Your task to perform on an android device: find which apps use the phone's location Image 0: 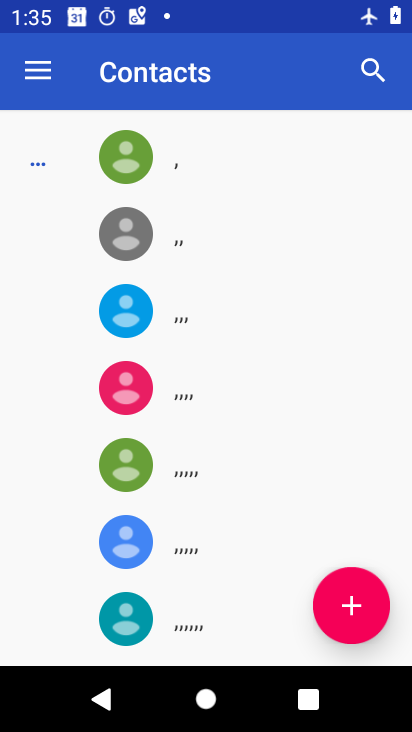
Step 0: press home button
Your task to perform on an android device: find which apps use the phone's location Image 1: 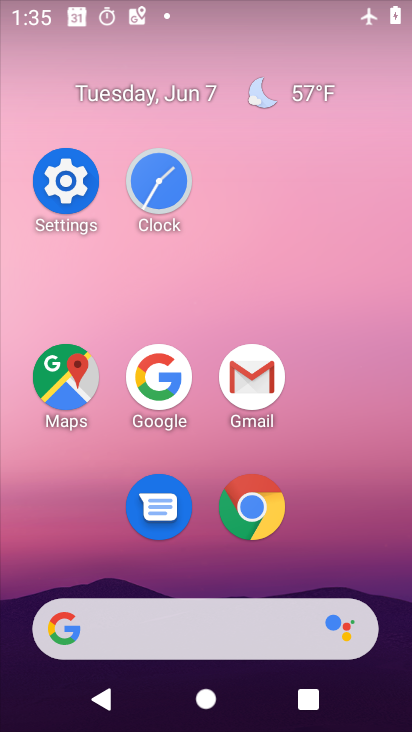
Step 1: click (89, 181)
Your task to perform on an android device: find which apps use the phone's location Image 2: 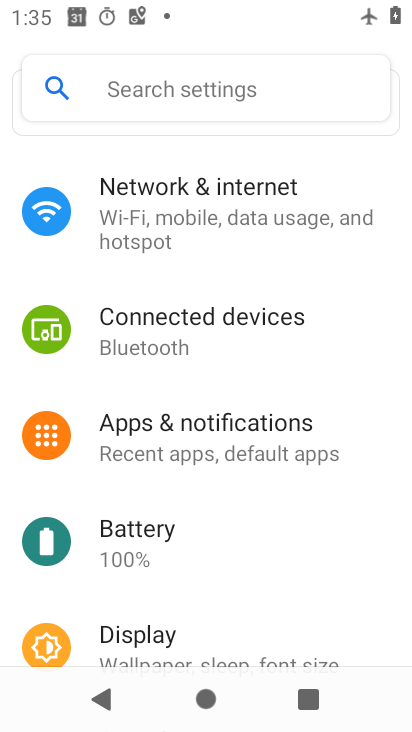
Step 2: drag from (221, 534) to (206, 260)
Your task to perform on an android device: find which apps use the phone's location Image 3: 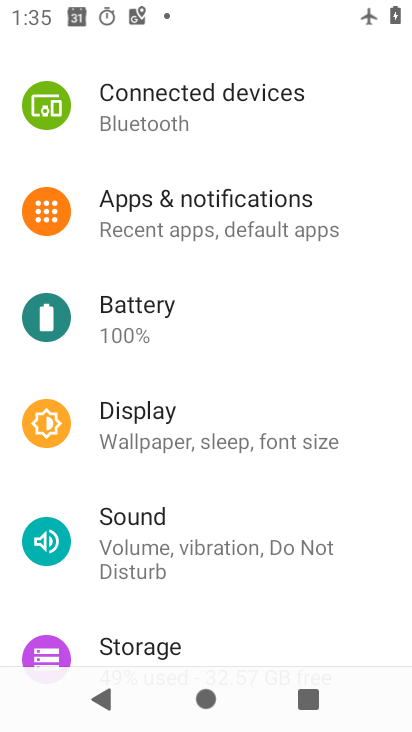
Step 3: drag from (197, 604) to (210, 248)
Your task to perform on an android device: find which apps use the phone's location Image 4: 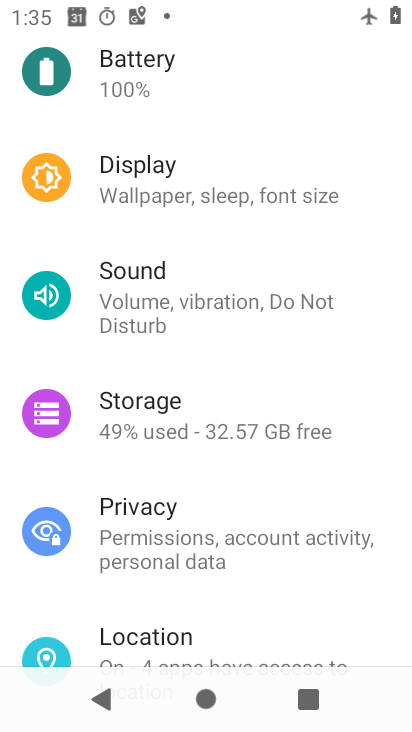
Step 4: click (210, 637)
Your task to perform on an android device: find which apps use the phone's location Image 5: 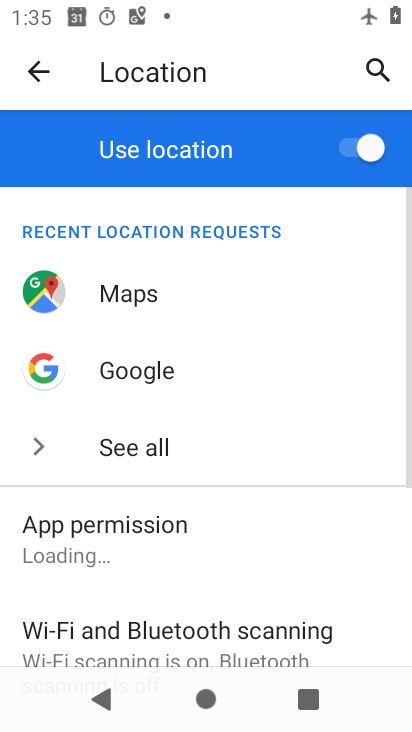
Step 5: task complete